Your task to perform on an android device: Search for sushi restaurants on Maps Image 0: 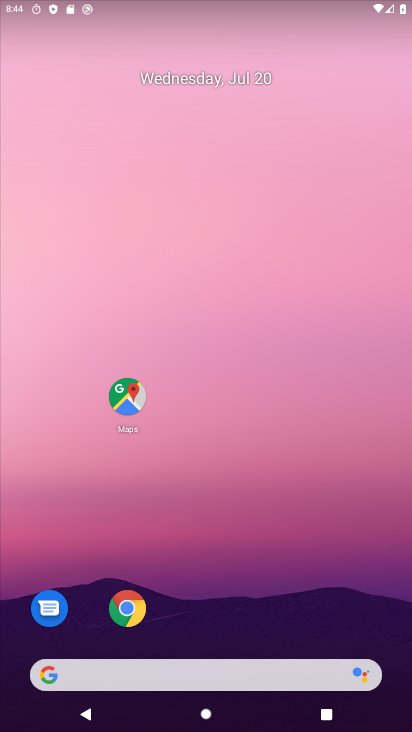
Step 0: drag from (282, 593) to (302, 184)
Your task to perform on an android device: Search for sushi restaurants on Maps Image 1: 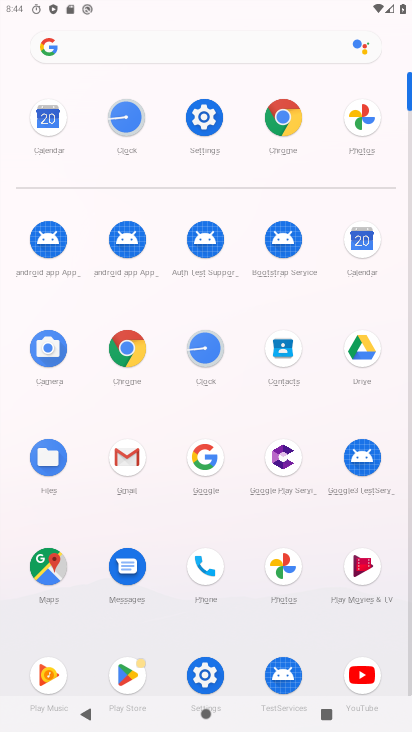
Step 1: click (58, 574)
Your task to perform on an android device: Search for sushi restaurants on Maps Image 2: 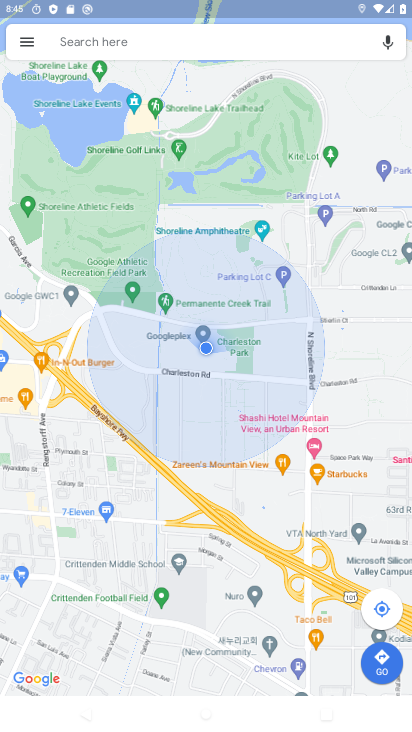
Step 2: click (143, 49)
Your task to perform on an android device: Search for sushi restaurants on Maps Image 3: 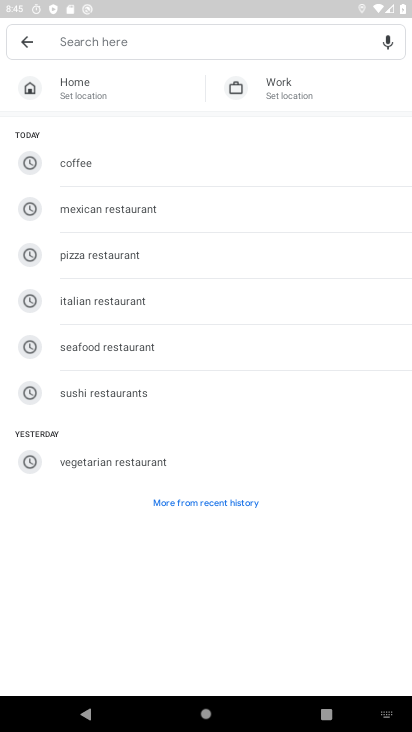
Step 3: click (146, 395)
Your task to perform on an android device: Search for sushi restaurants on Maps Image 4: 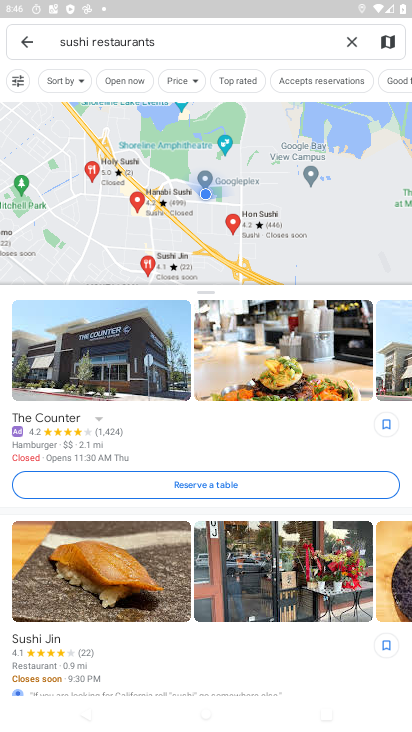
Step 4: task complete